Your task to perform on an android device: When is my next meeting? Image 0: 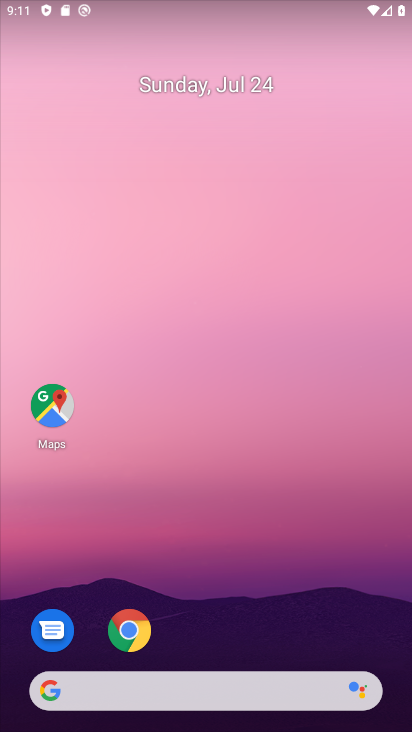
Step 0: drag from (240, 619) to (371, 16)
Your task to perform on an android device: When is my next meeting? Image 1: 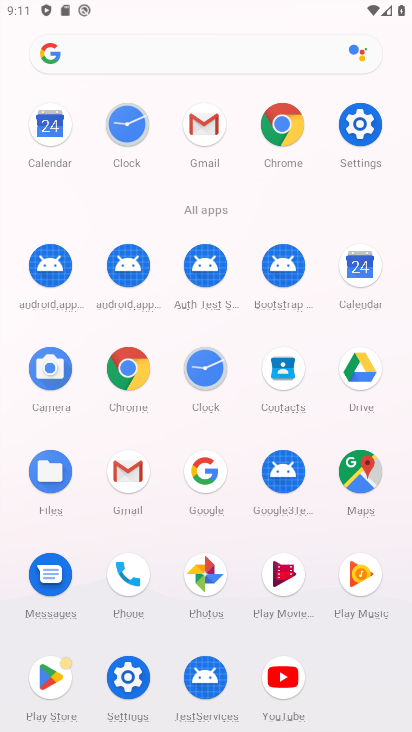
Step 1: click (364, 258)
Your task to perform on an android device: When is my next meeting? Image 2: 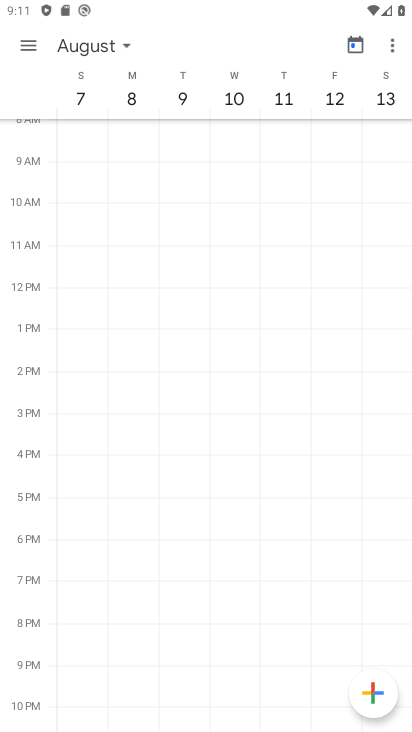
Step 2: click (11, 42)
Your task to perform on an android device: When is my next meeting? Image 3: 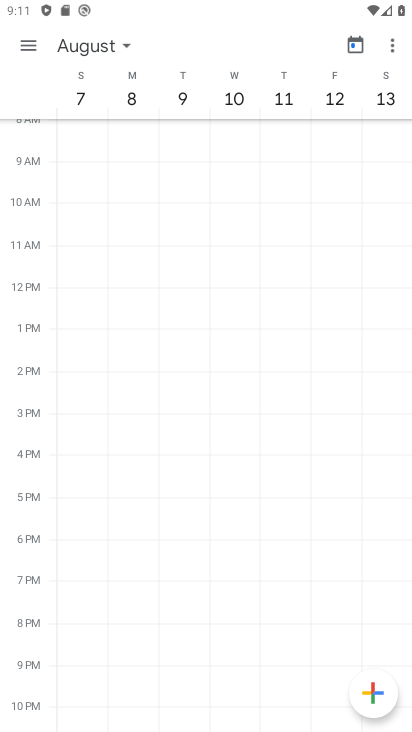
Step 3: click (27, 42)
Your task to perform on an android device: When is my next meeting? Image 4: 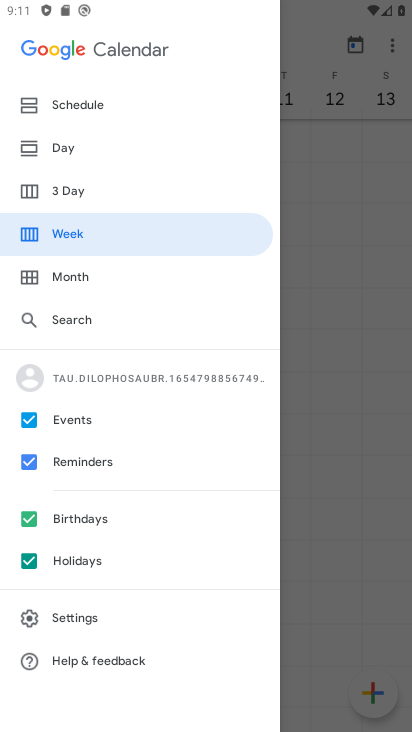
Step 4: click (87, 267)
Your task to perform on an android device: When is my next meeting? Image 5: 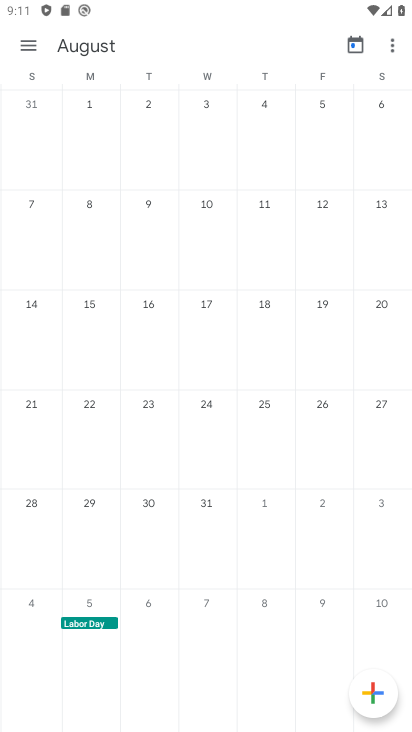
Step 5: drag from (4, 291) to (360, 302)
Your task to perform on an android device: When is my next meeting? Image 6: 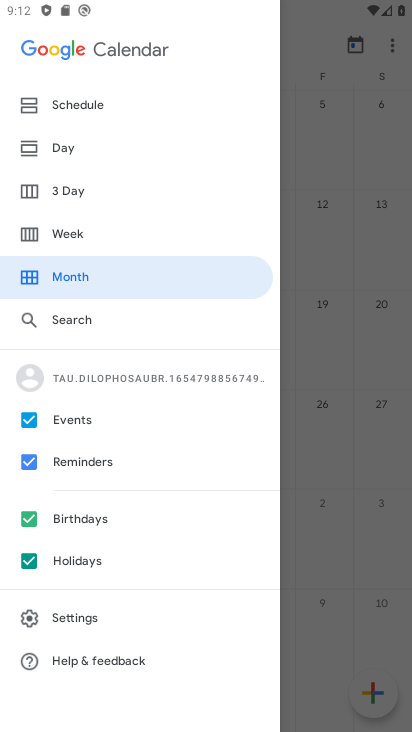
Step 6: click (95, 264)
Your task to perform on an android device: When is my next meeting? Image 7: 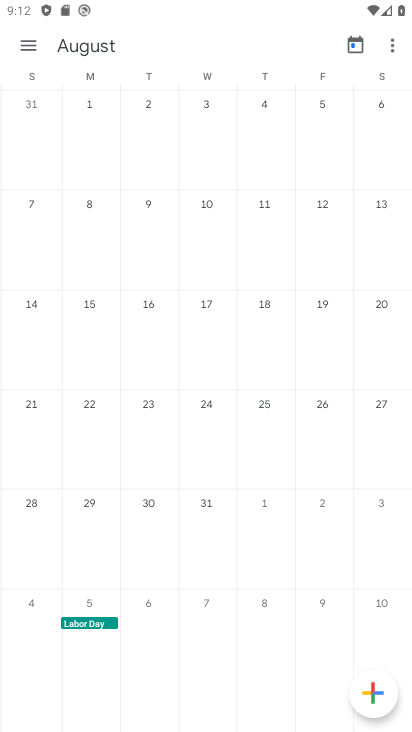
Step 7: drag from (80, 244) to (385, 366)
Your task to perform on an android device: When is my next meeting? Image 8: 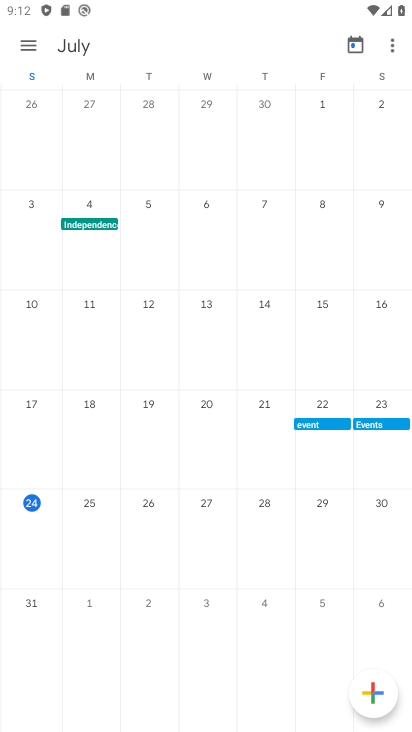
Step 8: click (88, 515)
Your task to perform on an android device: When is my next meeting? Image 9: 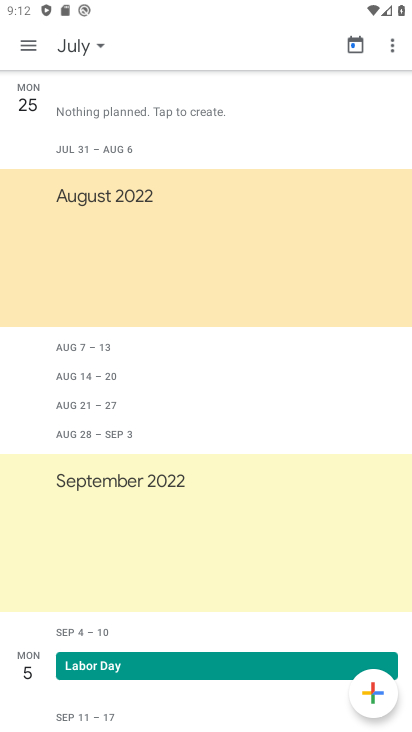
Step 9: task complete